Your task to perform on an android device: Go to network settings Image 0: 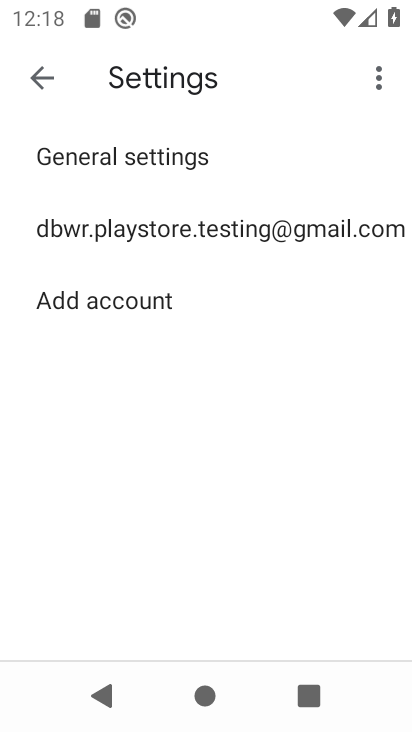
Step 0: press home button
Your task to perform on an android device: Go to network settings Image 1: 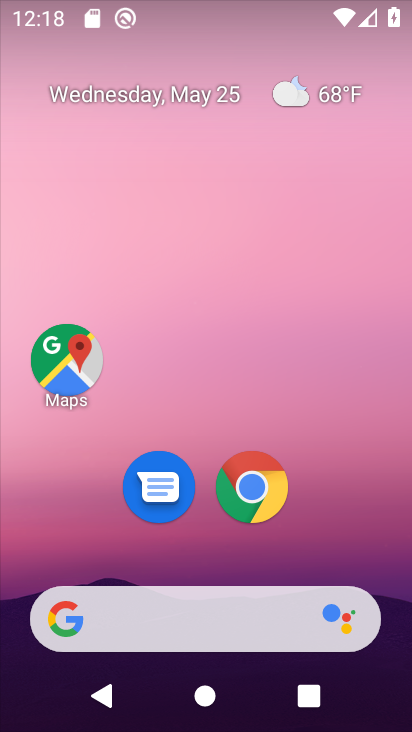
Step 1: drag from (186, 548) to (253, 10)
Your task to perform on an android device: Go to network settings Image 2: 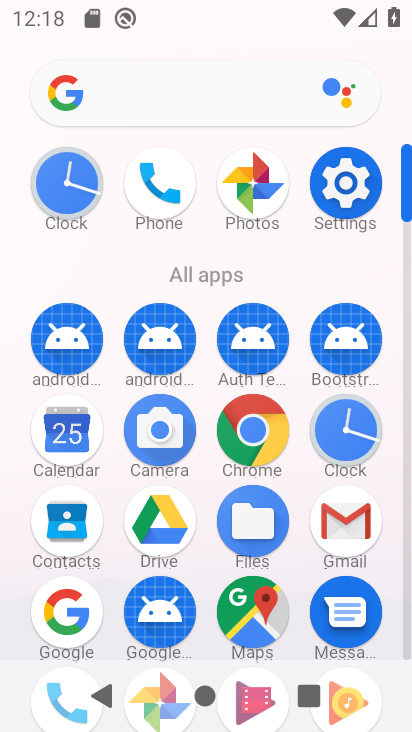
Step 2: click (341, 183)
Your task to perform on an android device: Go to network settings Image 3: 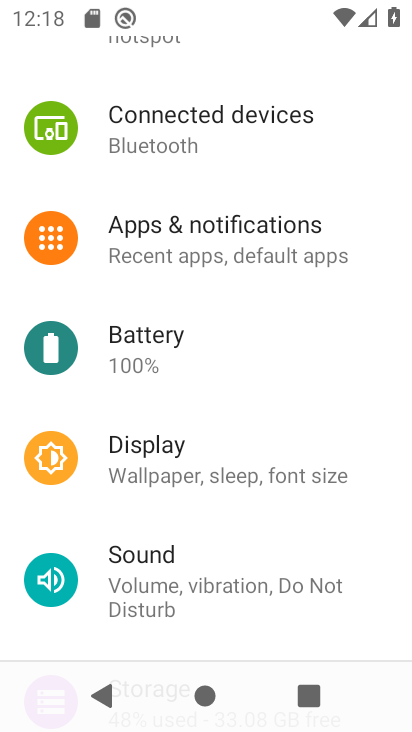
Step 3: drag from (320, 190) to (266, 546)
Your task to perform on an android device: Go to network settings Image 4: 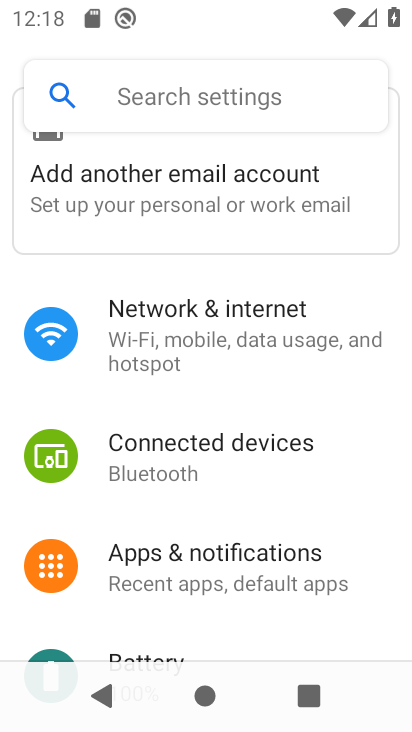
Step 4: click (214, 297)
Your task to perform on an android device: Go to network settings Image 5: 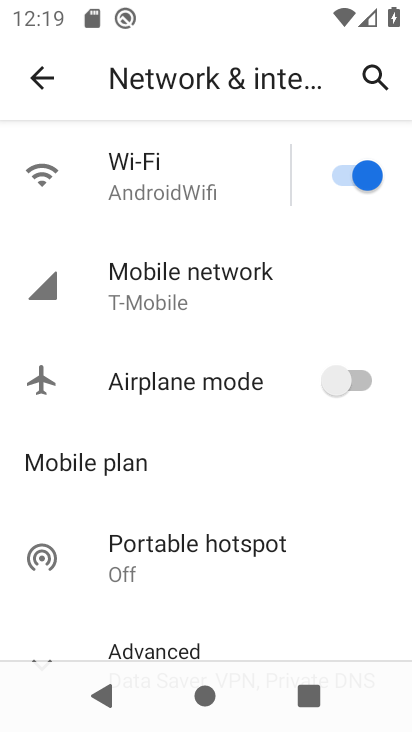
Step 5: click (172, 284)
Your task to perform on an android device: Go to network settings Image 6: 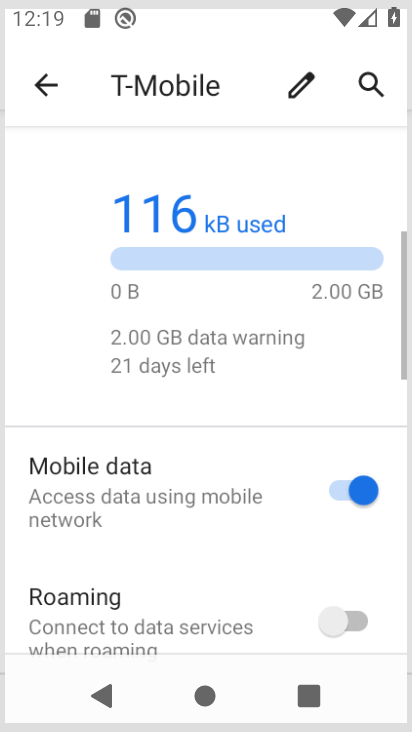
Step 6: task complete